Your task to perform on an android device: delete the emails in spam in the gmail app Image 0: 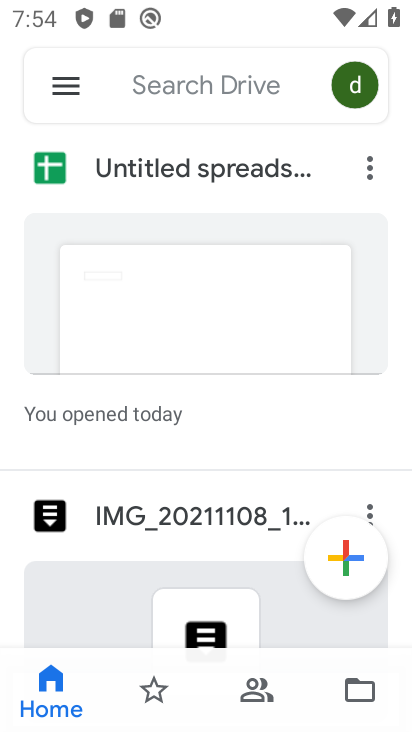
Step 0: press back button
Your task to perform on an android device: delete the emails in spam in the gmail app Image 1: 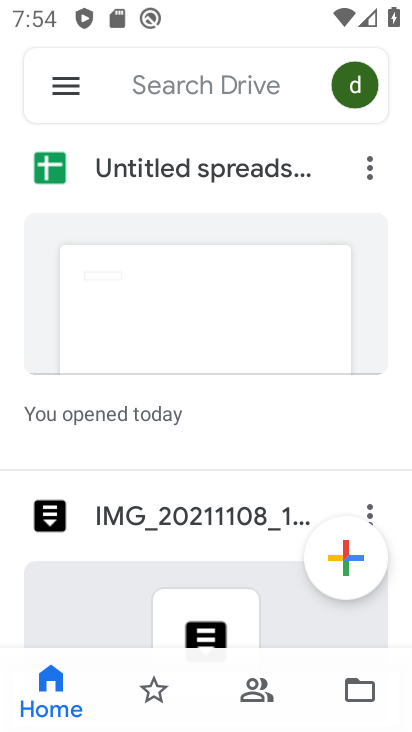
Step 1: press back button
Your task to perform on an android device: delete the emails in spam in the gmail app Image 2: 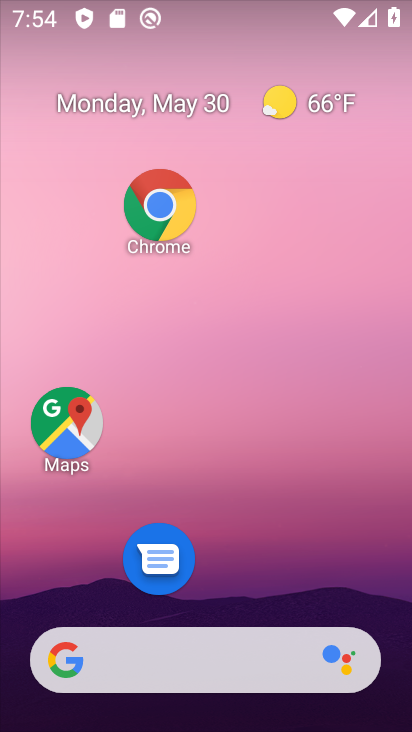
Step 2: drag from (267, 682) to (410, 170)
Your task to perform on an android device: delete the emails in spam in the gmail app Image 3: 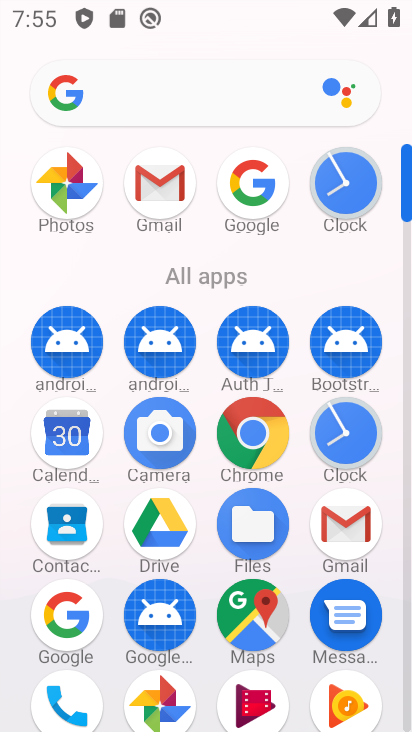
Step 3: click (332, 519)
Your task to perform on an android device: delete the emails in spam in the gmail app Image 4: 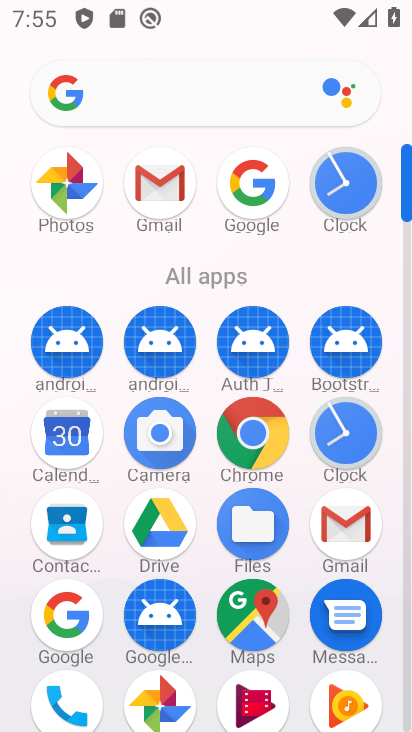
Step 4: click (333, 520)
Your task to perform on an android device: delete the emails in spam in the gmail app Image 5: 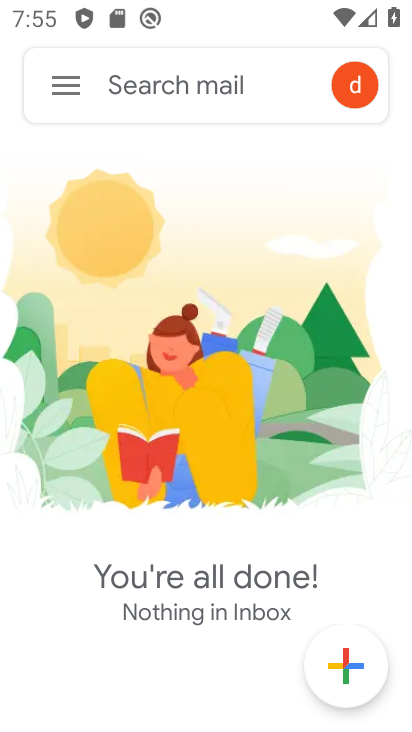
Step 5: click (341, 527)
Your task to perform on an android device: delete the emails in spam in the gmail app Image 6: 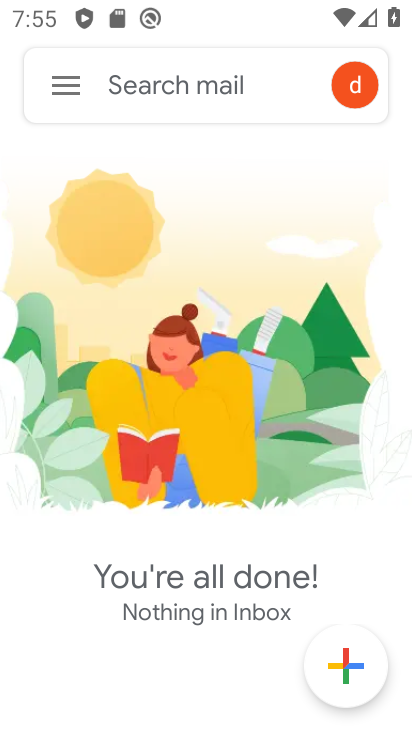
Step 6: click (68, 92)
Your task to perform on an android device: delete the emails in spam in the gmail app Image 7: 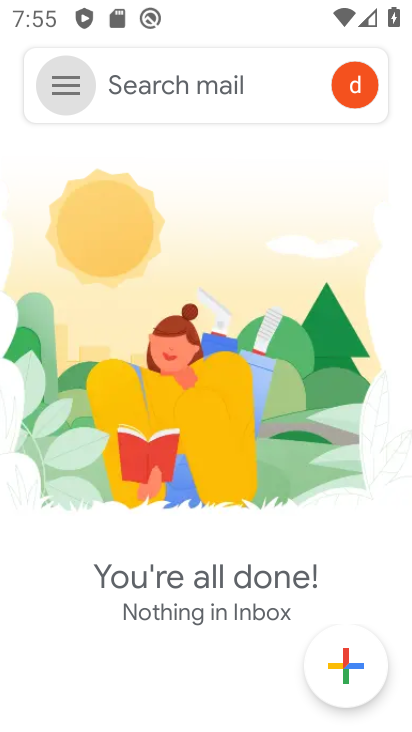
Step 7: click (68, 92)
Your task to perform on an android device: delete the emails in spam in the gmail app Image 8: 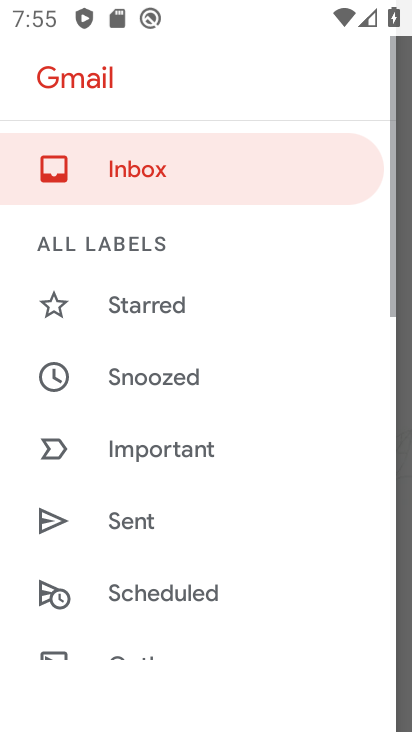
Step 8: drag from (187, 569) to (119, 291)
Your task to perform on an android device: delete the emails in spam in the gmail app Image 9: 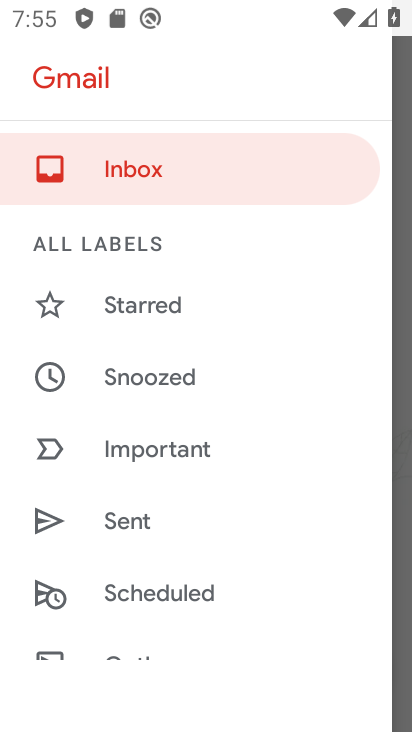
Step 9: drag from (219, 511) to (188, 216)
Your task to perform on an android device: delete the emails in spam in the gmail app Image 10: 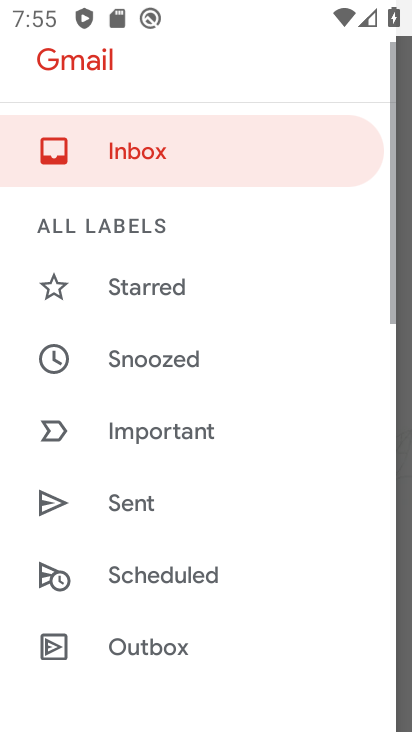
Step 10: click (255, 73)
Your task to perform on an android device: delete the emails in spam in the gmail app Image 11: 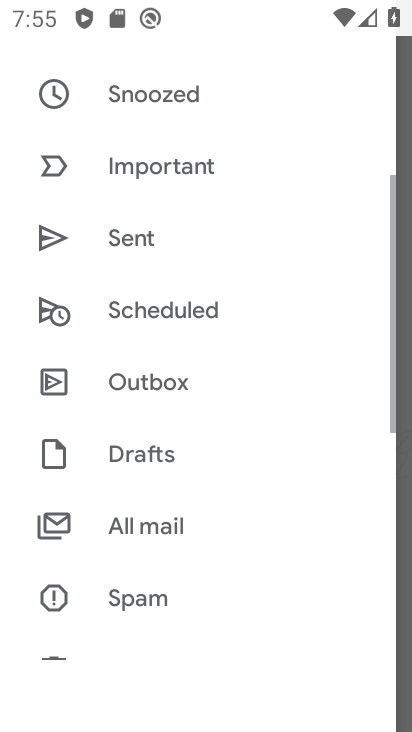
Step 11: drag from (216, 449) to (213, 78)
Your task to perform on an android device: delete the emails in spam in the gmail app Image 12: 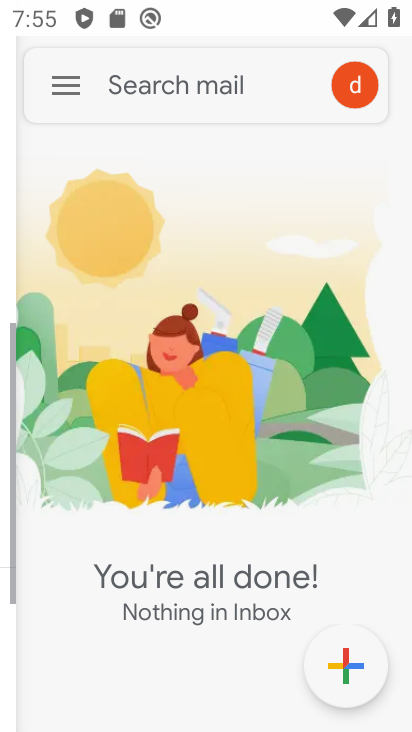
Step 12: drag from (246, 514) to (248, 197)
Your task to perform on an android device: delete the emails in spam in the gmail app Image 13: 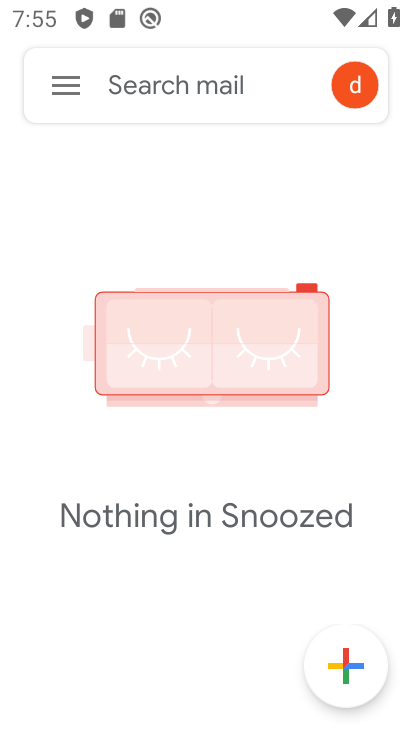
Step 13: click (70, 92)
Your task to perform on an android device: delete the emails in spam in the gmail app Image 14: 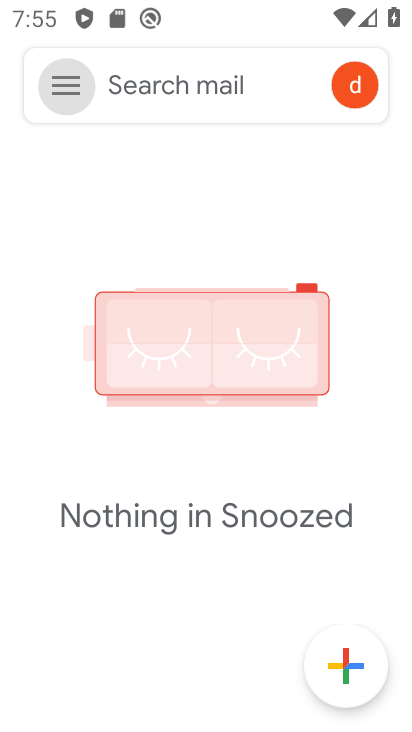
Step 14: click (70, 92)
Your task to perform on an android device: delete the emails in spam in the gmail app Image 15: 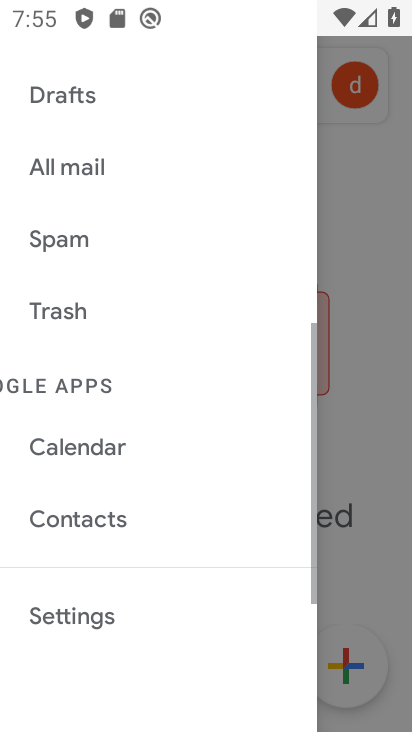
Step 15: click (70, 92)
Your task to perform on an android device: delete the emails in spam in the gmail app Image 16: 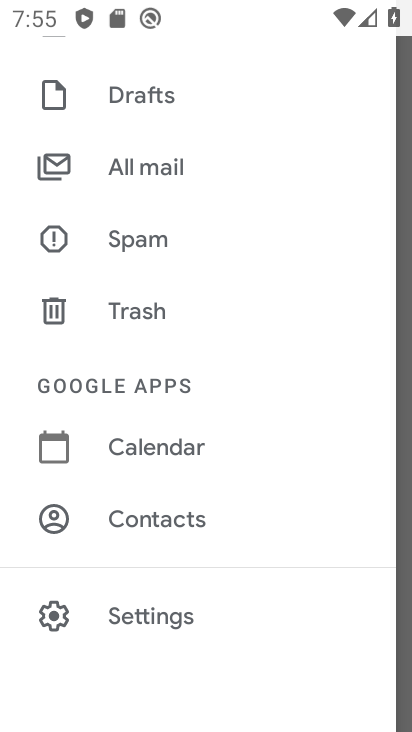
Step 16: click (138, 235)
Your task to perform on an android device: delete the emails in spam in the gmail app Image 17: 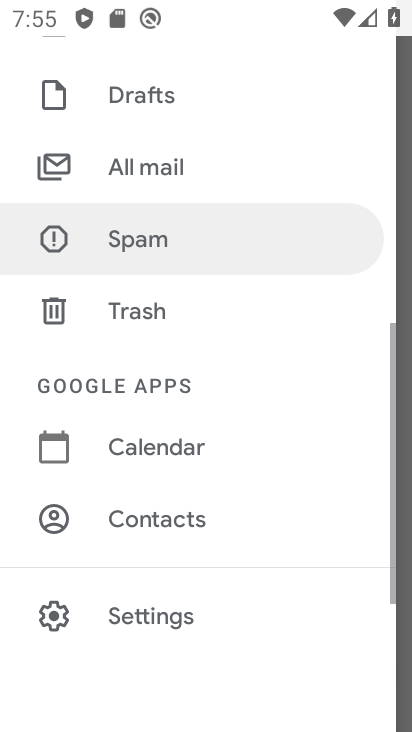
Step 17: click (137, 235)
Your task to perform on an android device: delete the emails in spam in the gmail app Image 18: 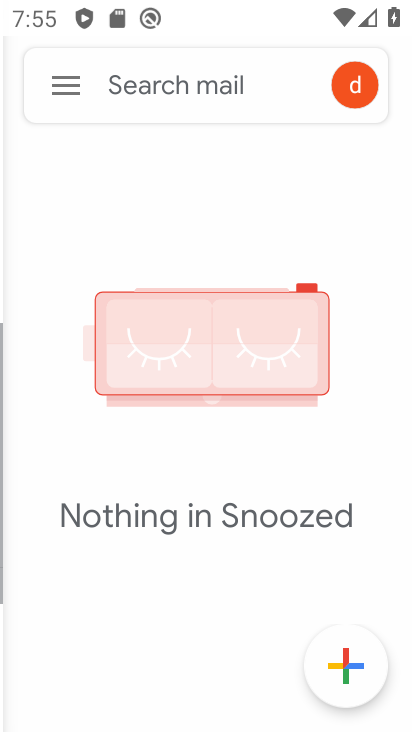
Step 18: click (134, 233)
Your task to perform on an android device: delete the emails in spam in the gmail app Image 19: 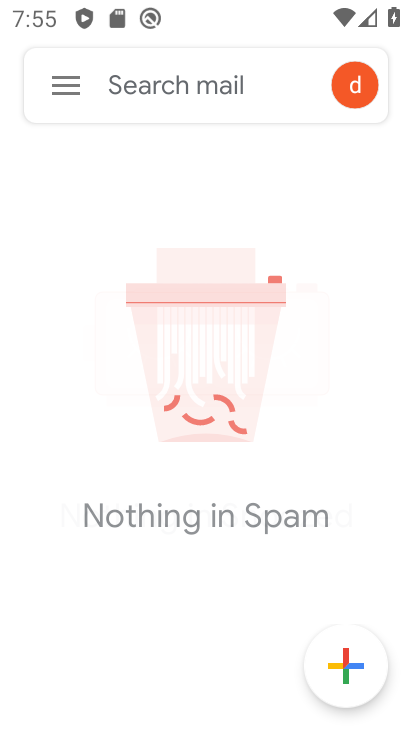
Step 19: click (134, 233)
Your task to perform on an android device: delete the emails in spam in the gmail app Image 20: 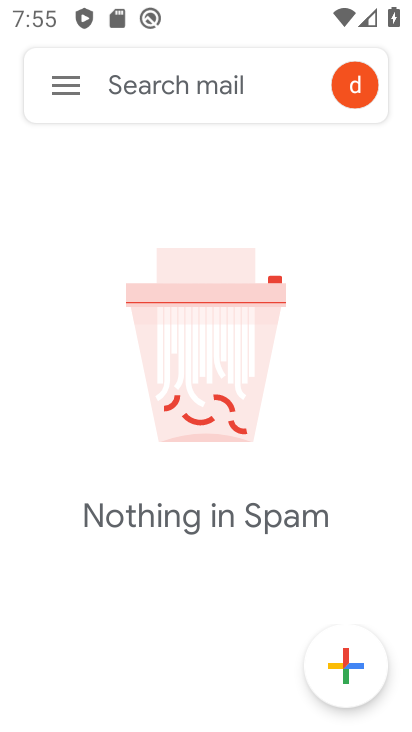
Step 20: task complete